Your task to perform on an android device: Open internet settings Image 0: 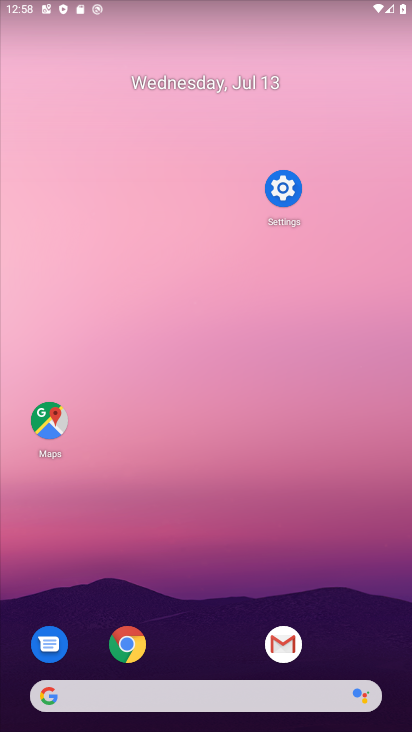
Step 0: click (276, 179)
Your task to perform on an android device: Open internet settings Image 1: 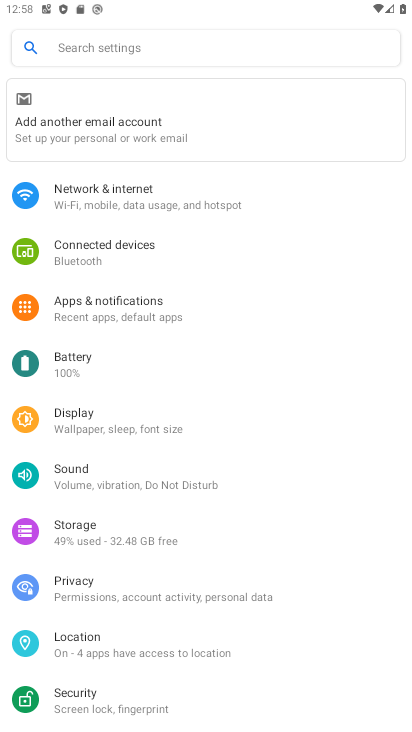
Step 1: click (159, 186)
Your task to perform on an android device: Open internet settings Image 2: 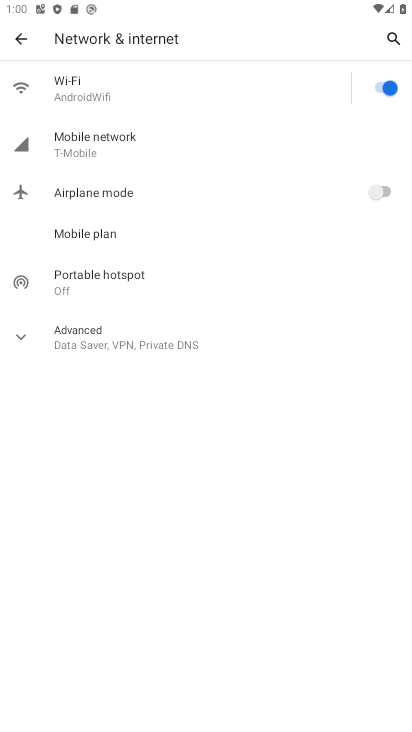
Step 2: task complete